Your task to perform on an android device: Open Android settings Image 0: 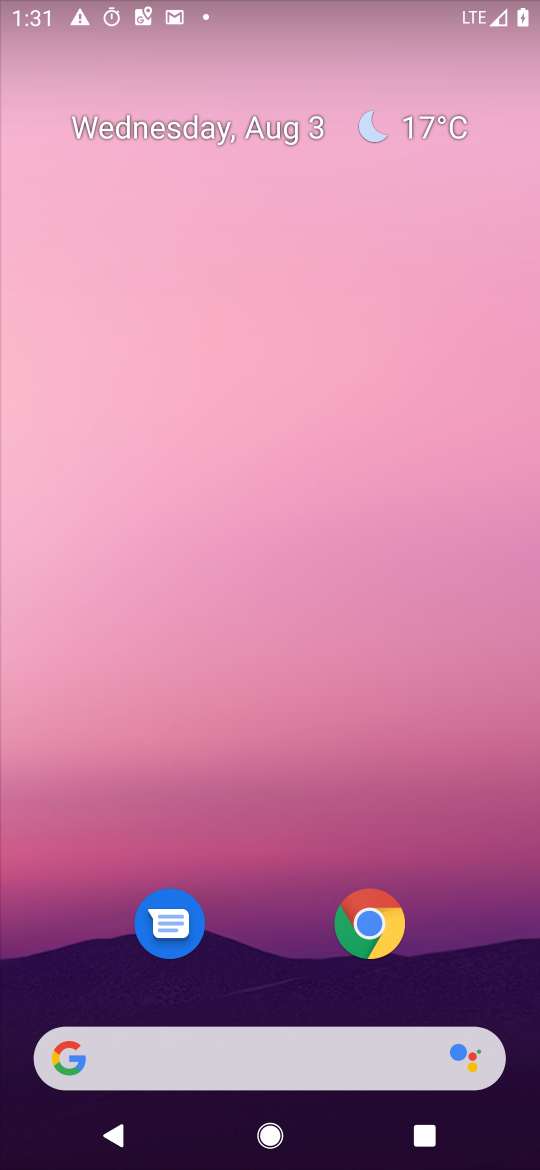
Step 0: drag from (228, 989) to (159, 593)
Your task to perform on an android device: Open Android settings Image 1: 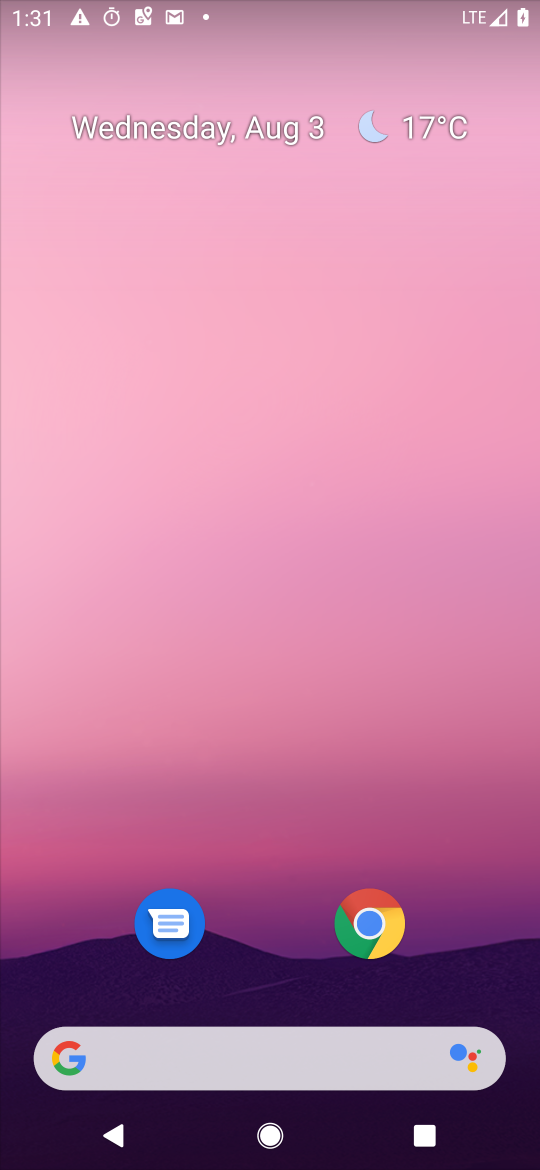
Step 1: drag from (274, 1002) to (82, 14)
Your task to perform on an android device: Open Android settings Image 2: 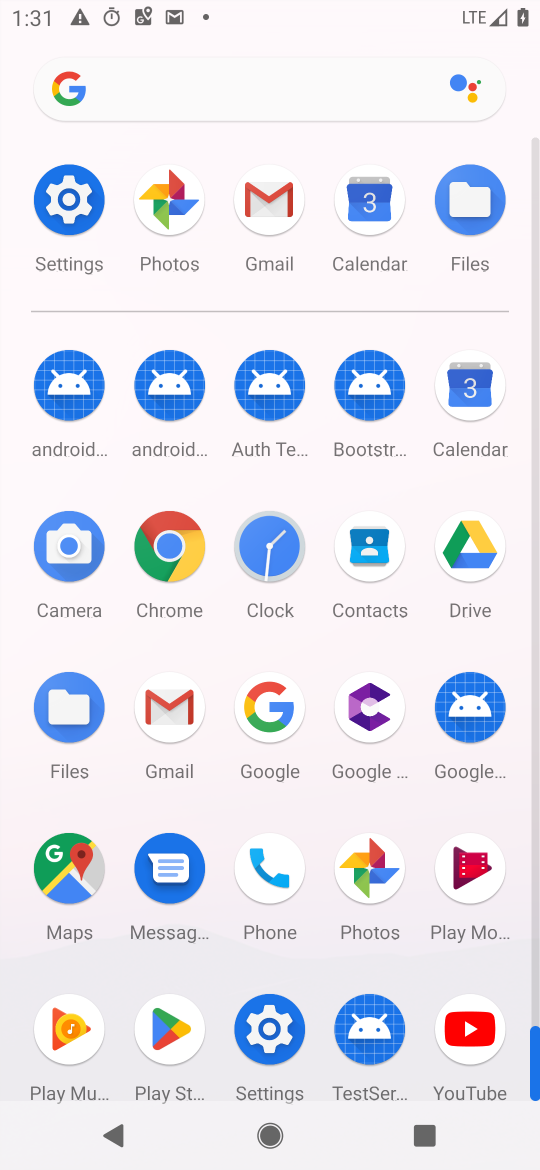
Step 2: click (270, 1017)
Your task to perform on an android device: Open Android settings Image 3: 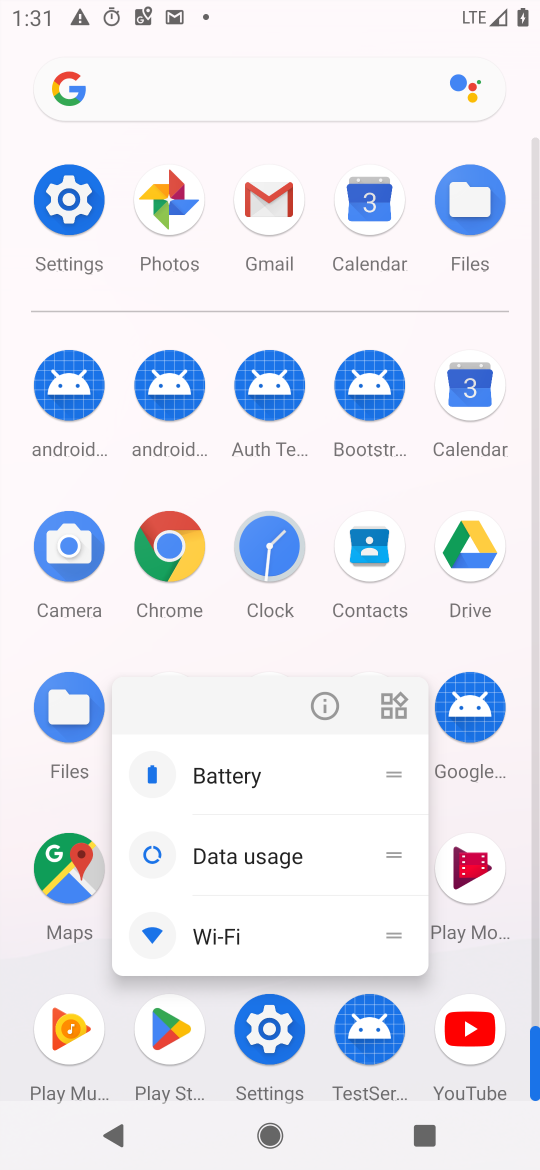
Step 3: click (318, 691)
Your task to perform on an android device: Open Android settings Image 4: 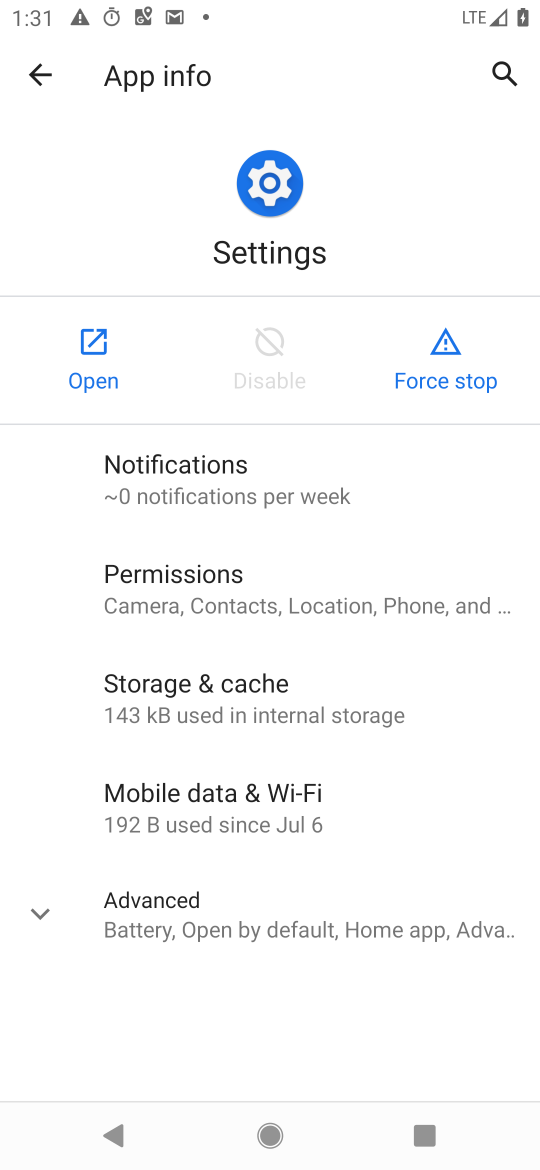
Step 4: click (102, 331)
Your task to perform on an android device: Open Android settings Image 5: 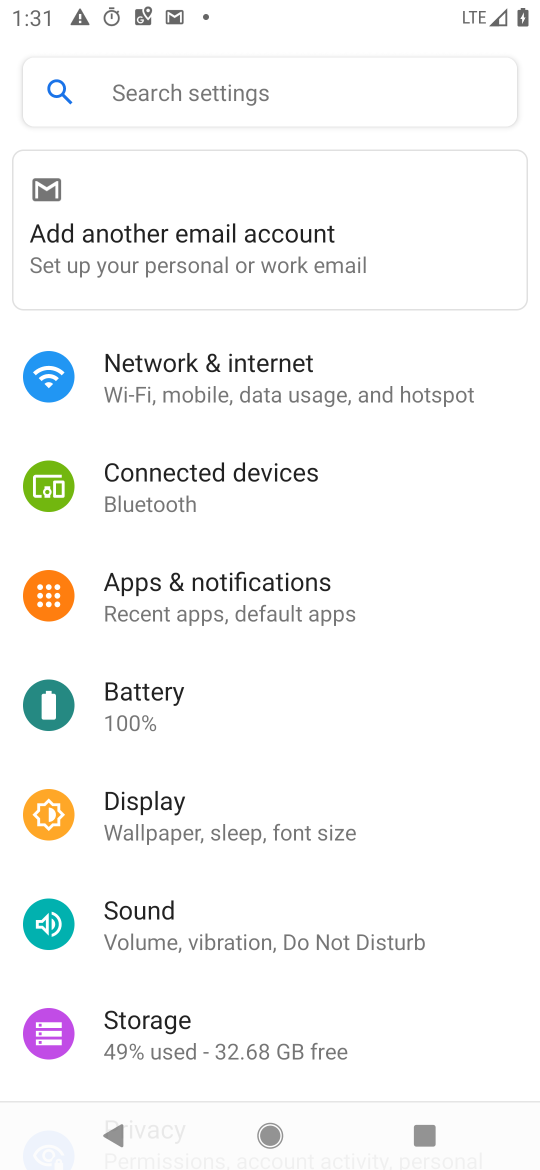
Step 5: drag from (272, 488) to (271, 1054)
Your task to perform on an android device: Open Android settings Image 6: 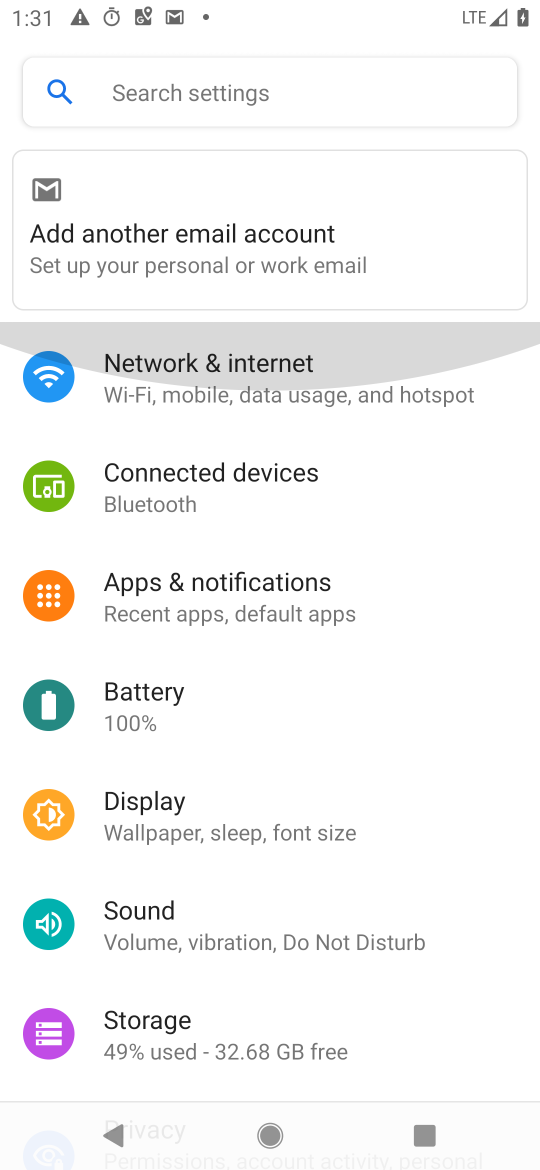
Step 6: drag from (224, 891) to (187, 230)
Your task to perform on an android device: Open Android settings Image 7: 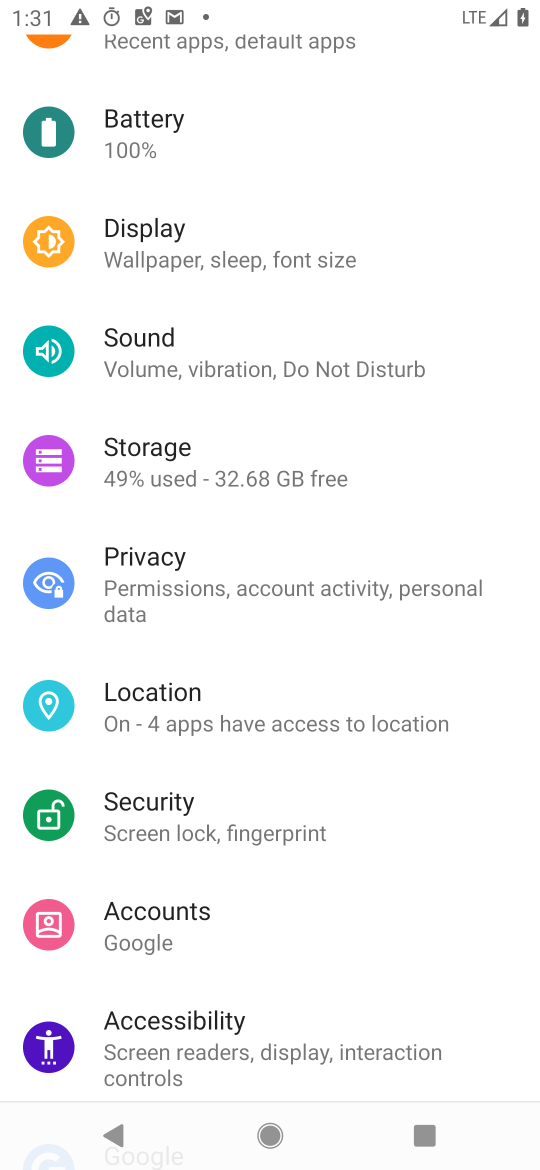
Step 7: drag from (180, 965) to (402, 225)
Your task to perform on an android device: Open Android settings Image 8: 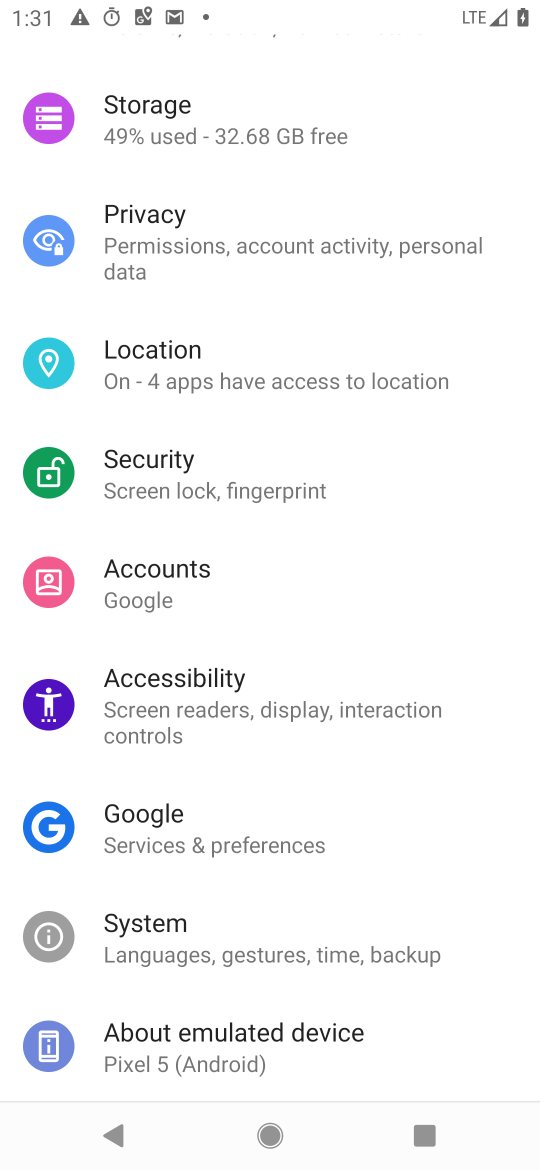
Step 8: click (225, 1028)
Your task to perform on an android device: Open Android settings Image 9: 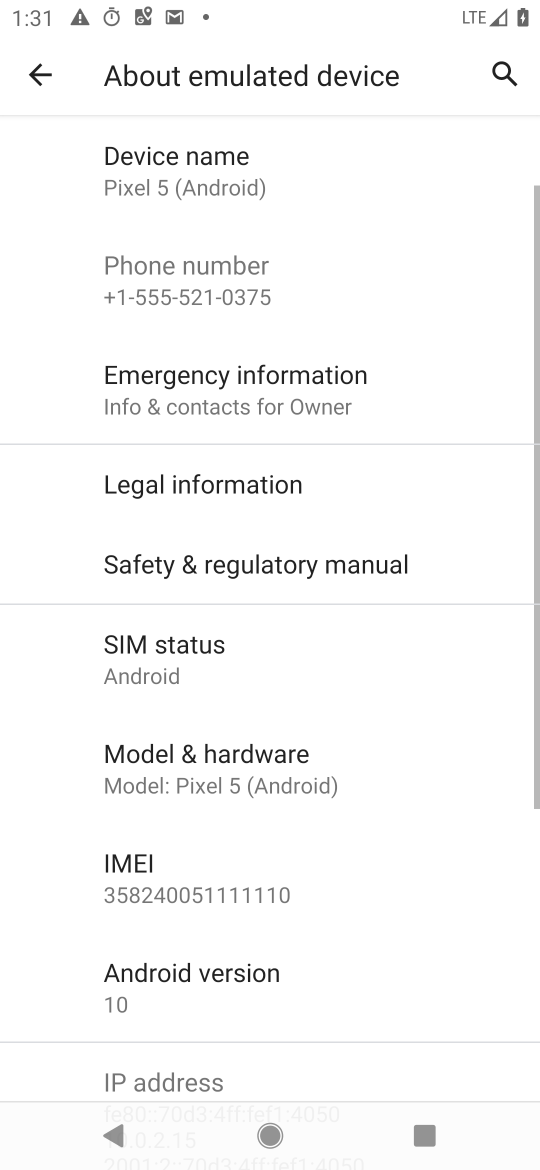
Step 9: drag from (254, 967) to (278, 547)
Your task to perform on an android device: Open Android settings Image 10: 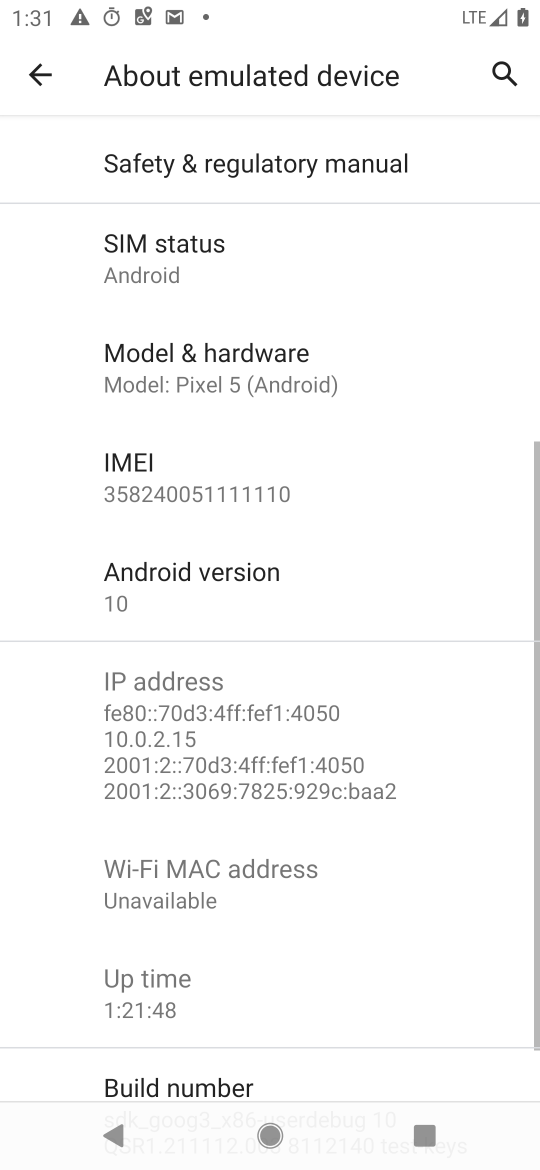
Step 10: click (278, 595)
Your task to perform on an android device: Open Android settings Image 11: 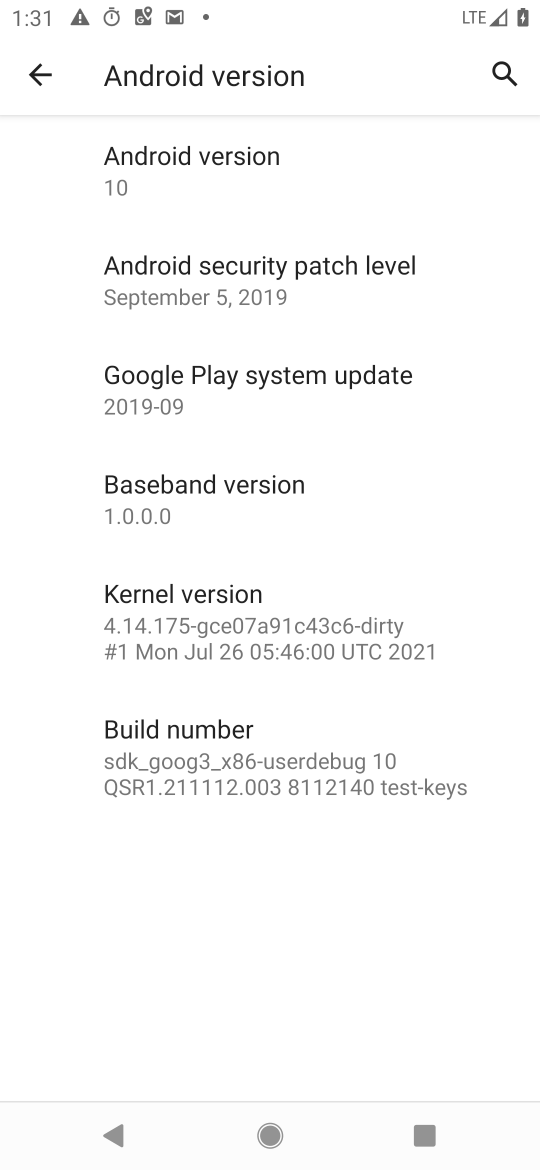
Step 11: click (205, 164)
Your task to perform on an android device: Open Android settings Image 12: 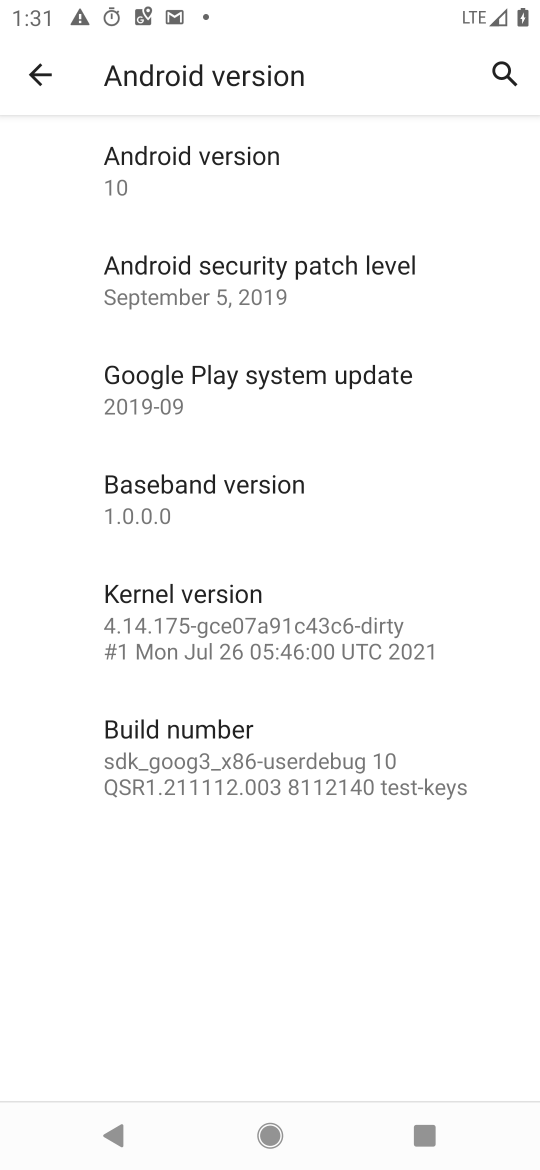
Step 12: task complete